Your task to perform on an android device: Go to Google maps Image 0: 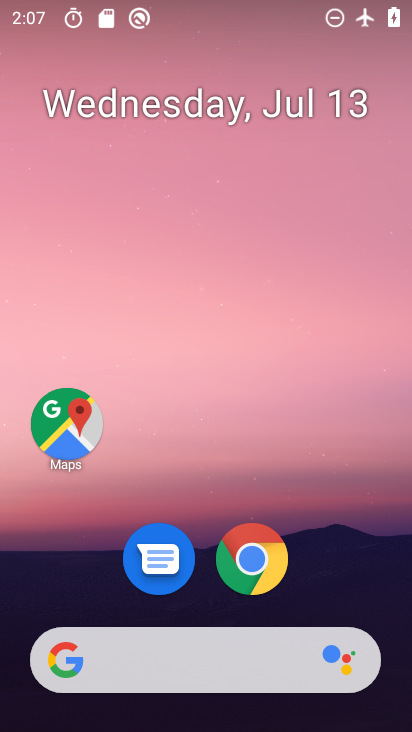
Step 0: press home button
Your task to perform on an android device: Go to Google maps Image 1: 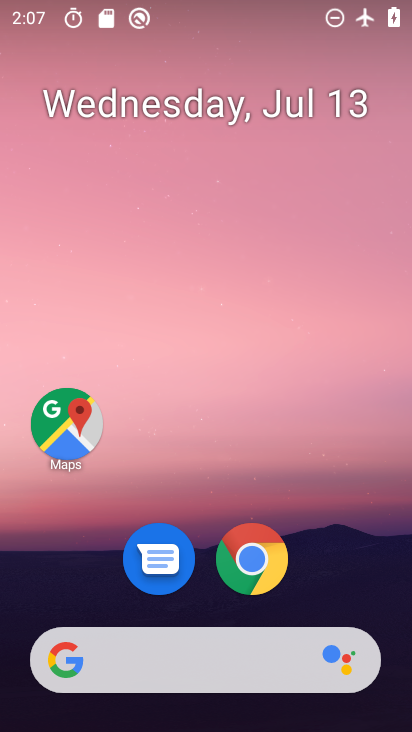
Step 1: drag from (185, 595) to (218, 279)
Your task to perform on an android device: Go to Google maps Image 2: 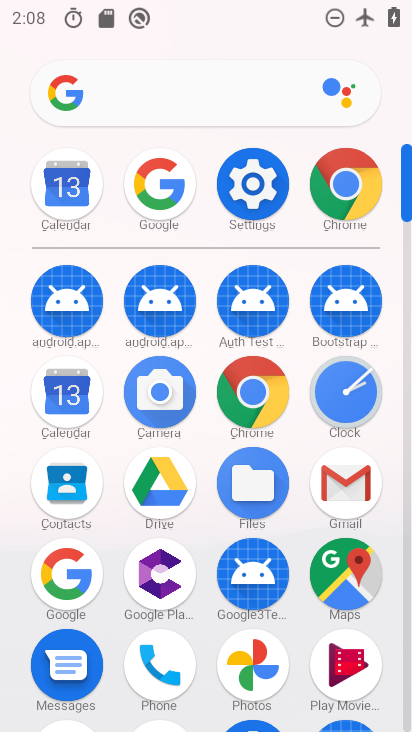
Step 2: drag from (218, 523) to (277, 374)
Your task to perform on an android device: Go to Google maps Image 3: 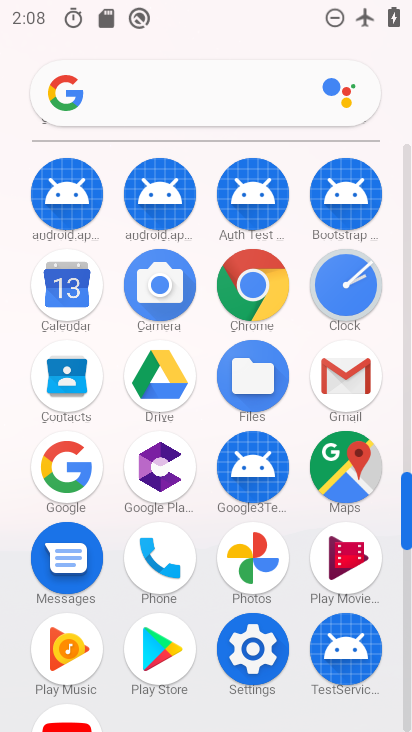
Step 3: click (346, 477)
Your task to perform on an android device: Go to Google maps Image 4: 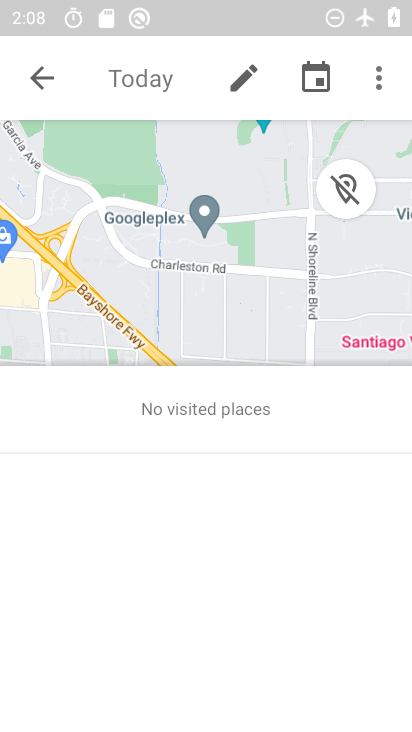
Step 4: task complete